Your task to perform on an android device: Open Google Chrome Image 0: 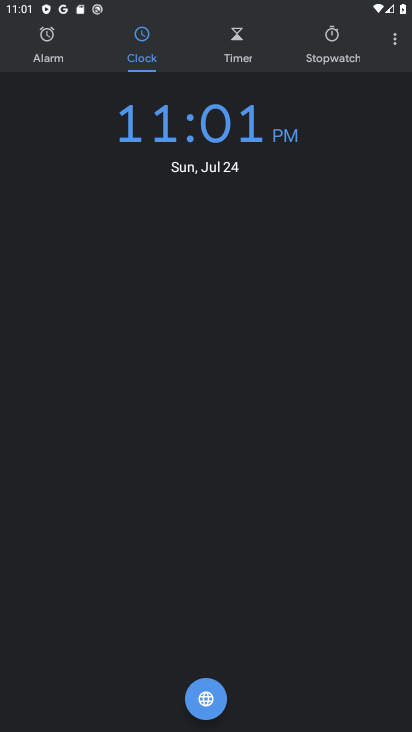
Step 0: press home button
Your task to perform on an android device: Open Google Chrome Image 1: 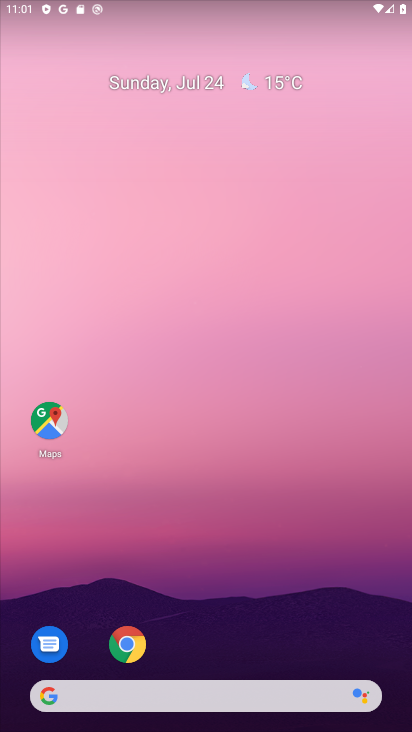
Step 1: click (131, 643)
Your task to perform on an android device: Open Google Chrome Image 2: 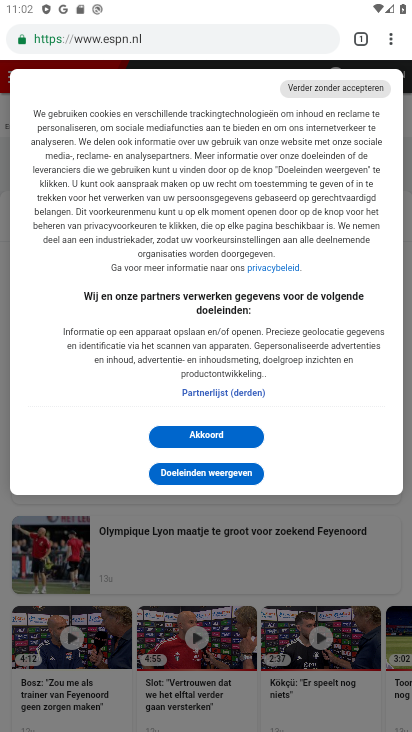
Step 2: task complete